Your task to perform on an android device: Open accessibility settings Image 0: 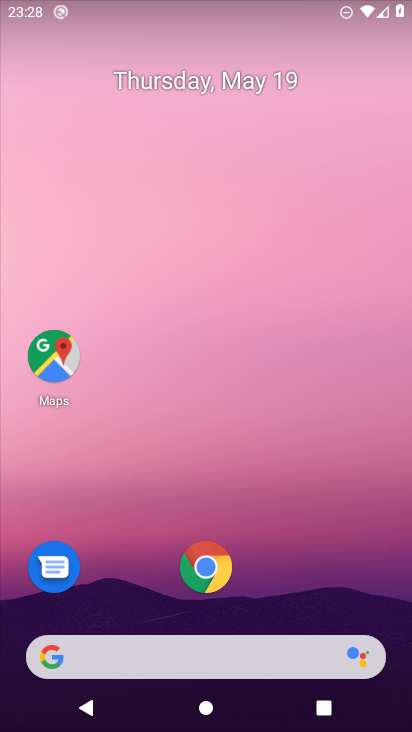
Step 0: press home button
Your task to perform on an android device: Open accessibility settings Image 1: 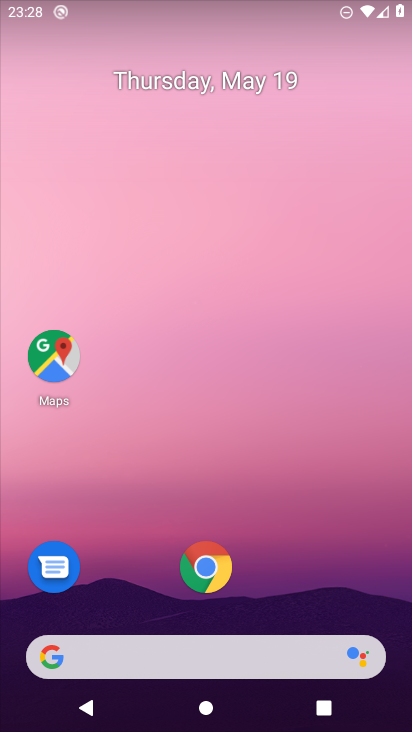
Step 1: drag from (274, 619) to (376, 159)
Your task to perform on an android device: Open accessibility settings Image 2: 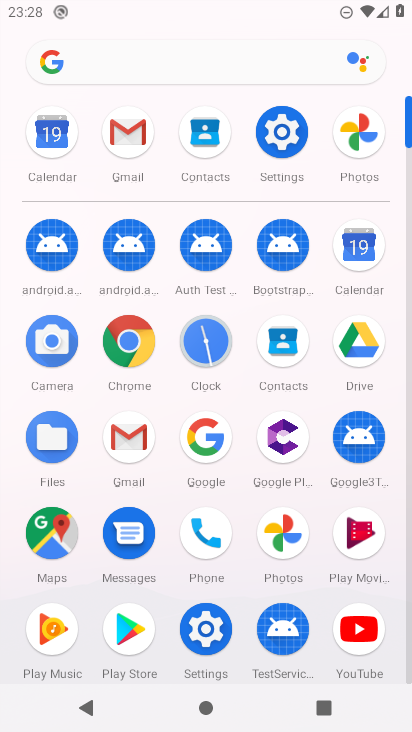
Step 2: click (210, 622)
Your task to perform on an android device: Open accessibility settings Image 3: 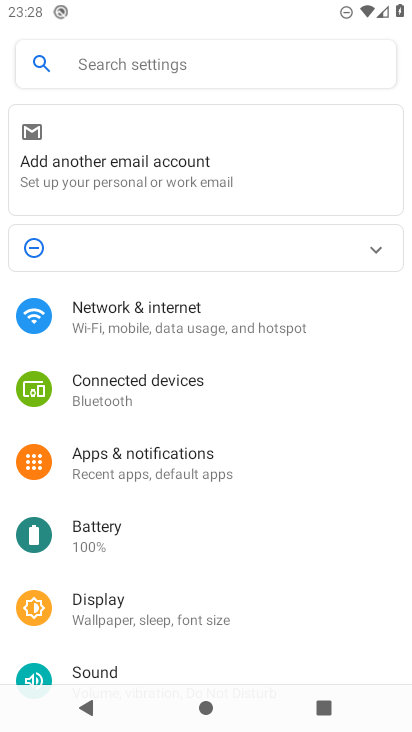
Step 3: drag from (186, 630) to (233, 253)
Your task to perform on an android device: Open accessibility settings Image 4: 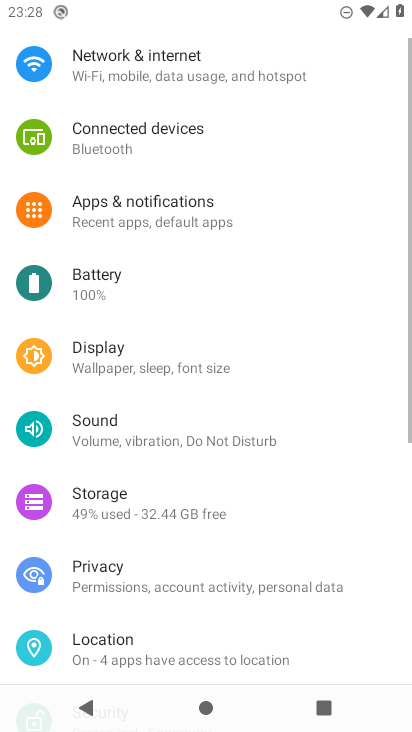
Step 4: click (243, 147)
Your task to perform on an android device: Open accessibility settings Image 5: 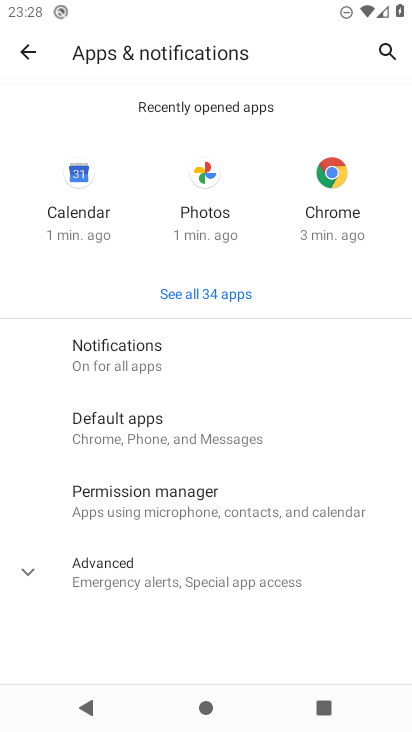
Step 5: press home button
Your task to perform on an android device: Open accessibility settings Image 6: 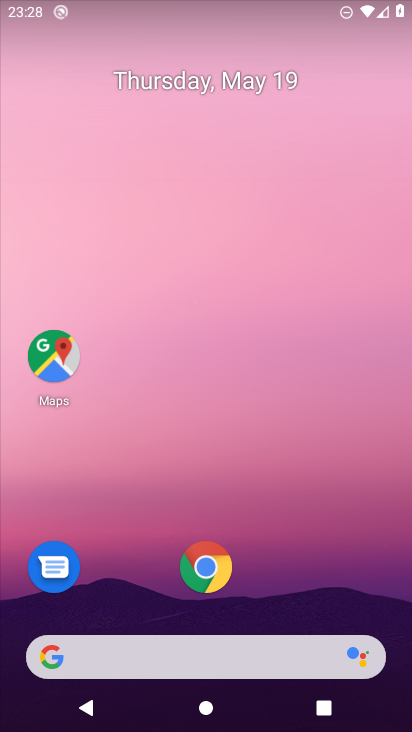
Step 6: drag from (263, 620) to (276, 73)
Your task to perform on an android device: Open accessibility settings Image 7: 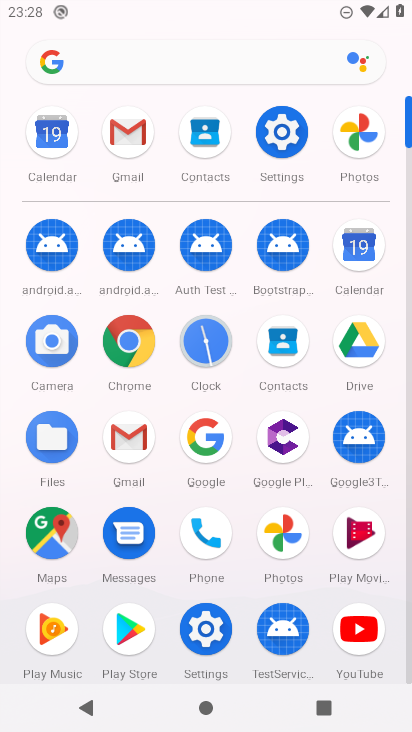
Step 7: click (201, 620)
Your task to perform on an android device: Open accessibility settings Image 8: 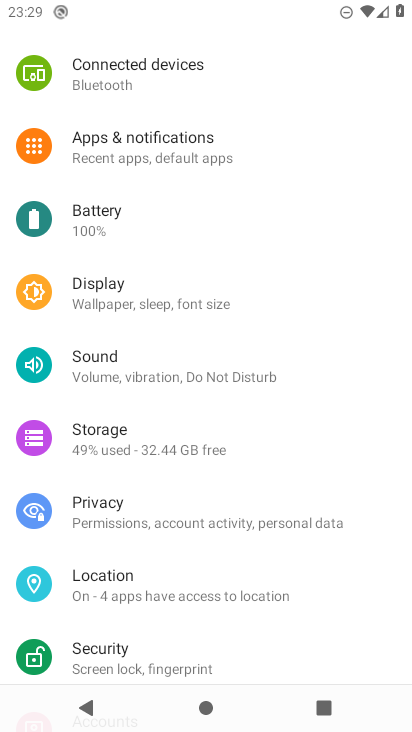
Step 8: drag from (145, 630) to (247, 247)
Your task to perform on an android device: Open accessibility settings Image 9: 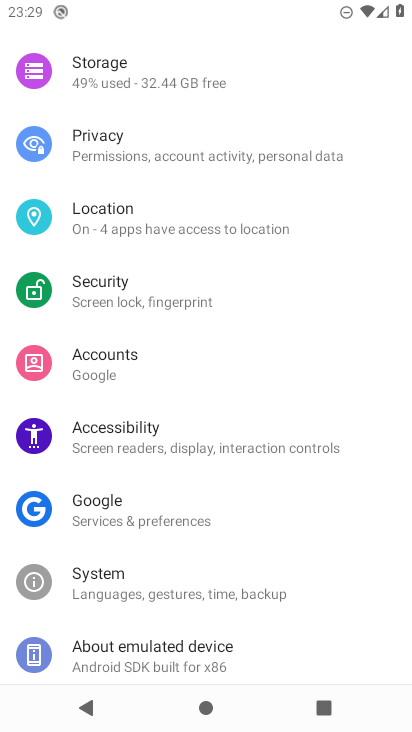
Step 9: click (152, 433)
Your task to perform on an android device: Open accessibility settings Image 10: 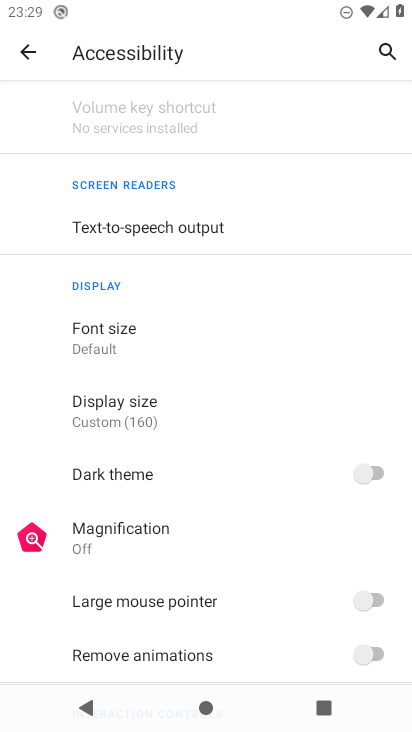
Step 10: task complete